Your task to perform on an android device: Go to Android settings Image 0: 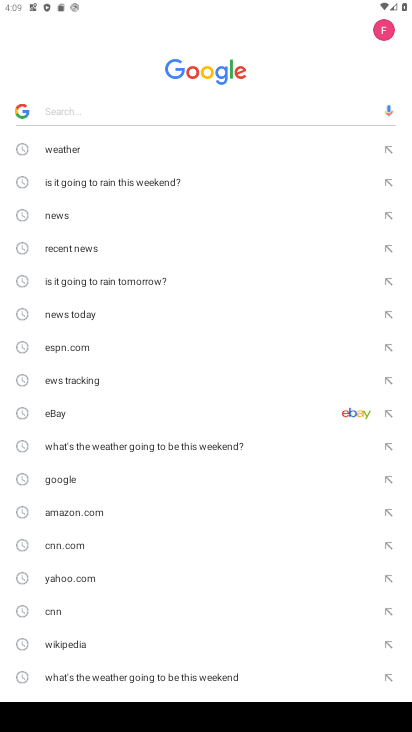
Step 0: press home button
Your task to perform on an android device: Go to Android settings Image 1: 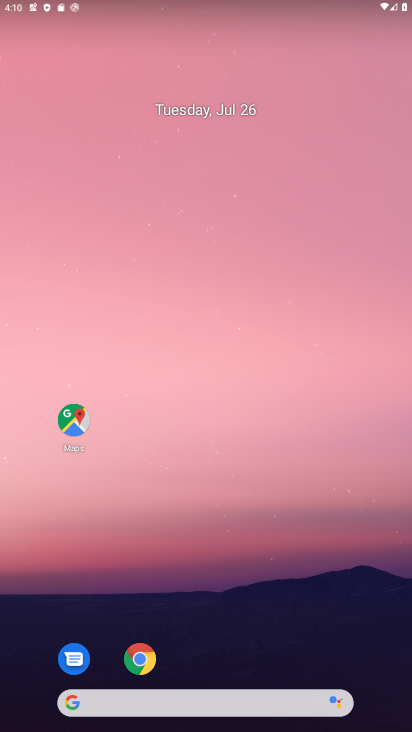
Step 1: drag from (243, 520) to (147, 67)
Your task to perform on an android device: Go to Android settings Image 2: 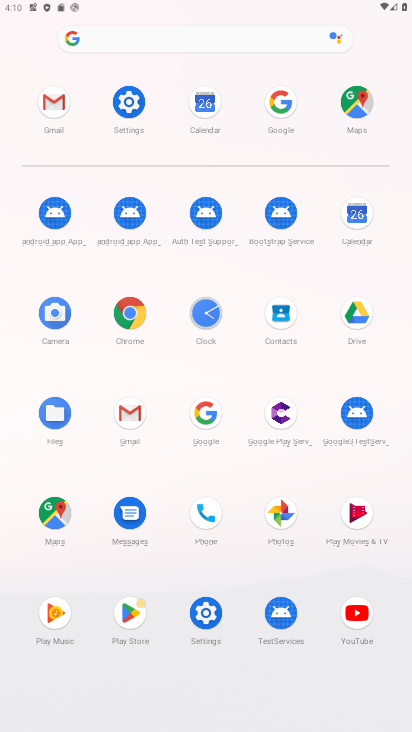
Step 2: click (132, 107)
Your task to perform on an android device: Go to Android settings Image 3: 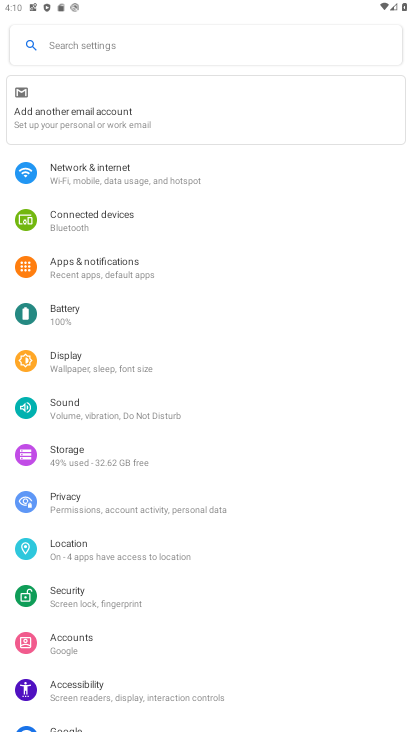
Step 3: task complete